Your task to perform on an android device: Open Google Image 0: 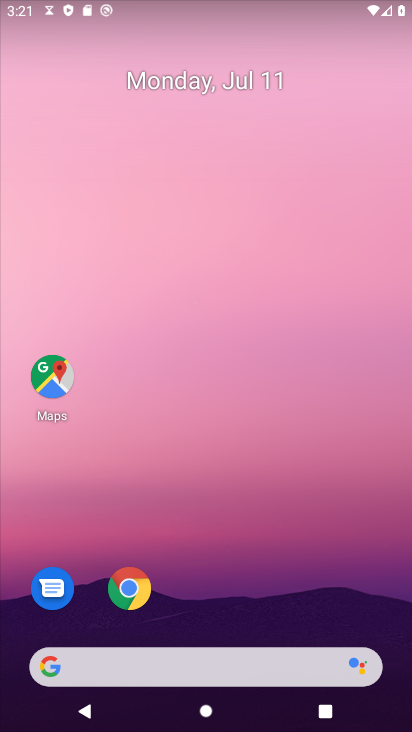
Step 0: drag from (232, 559) to (231, 7)
Your task to perform on an android device: Open Google Image 1: 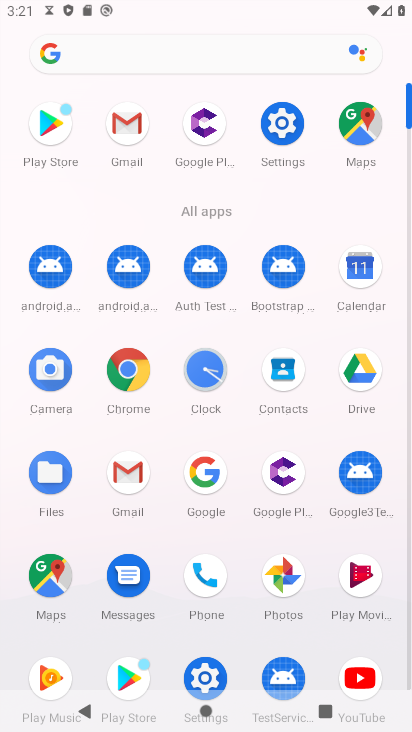
Step 1: click (203, 467)
Your task to perform on an android device: Open Google Image 2: 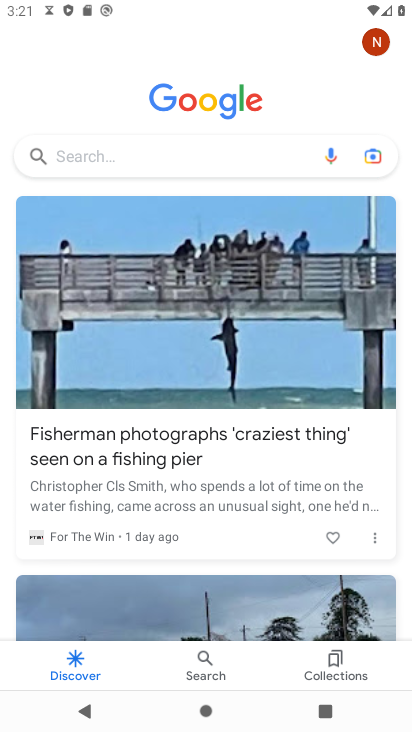
Step 2: task complete